Your task to perform on an android device: Search for usb-a to usb-b on newegg, select the first entry, and add it to the cart. Image 0: 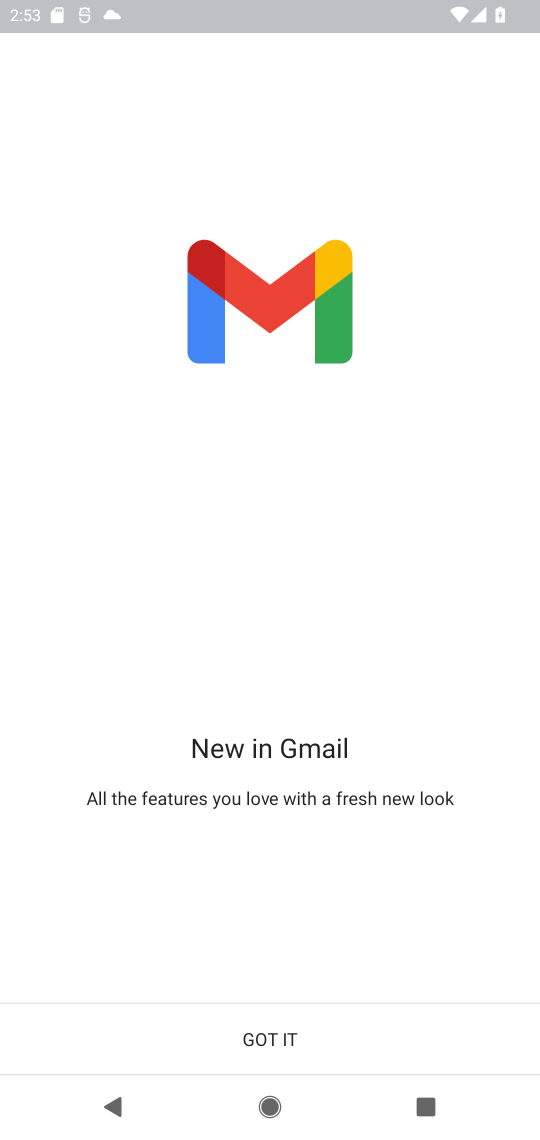
Step 0: press home button
Your task to perform on an android device: Search for usb-a to usb-b on newegg, select the first entry, and add it to the cart. Image 1: 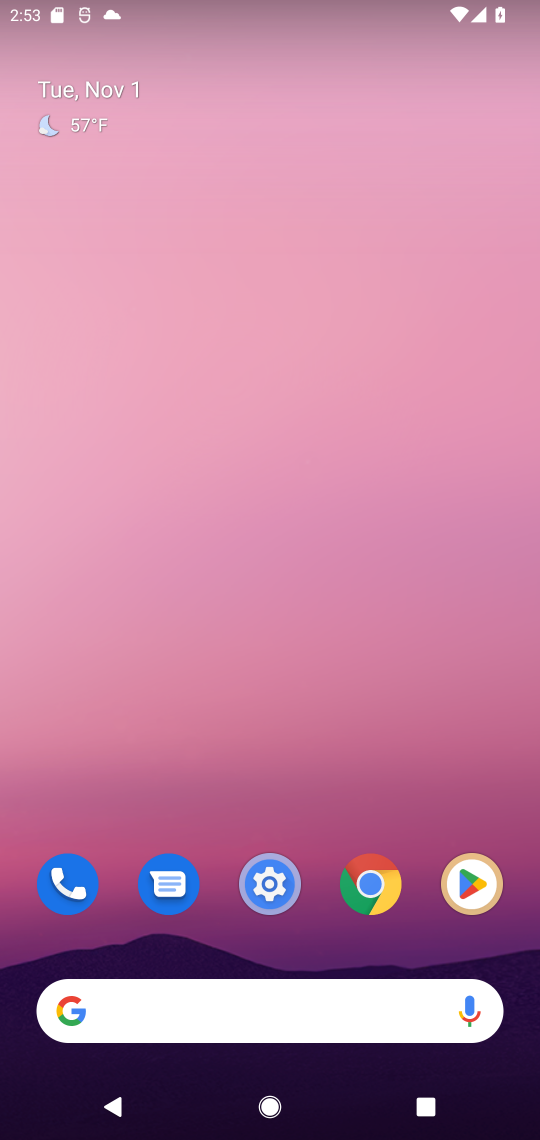
Step 1: click (126, 1014)
Your task to perform on an android device: Search for usb-a to usb-b on newegg, select the first entry, and add it to the cart. Image 2: 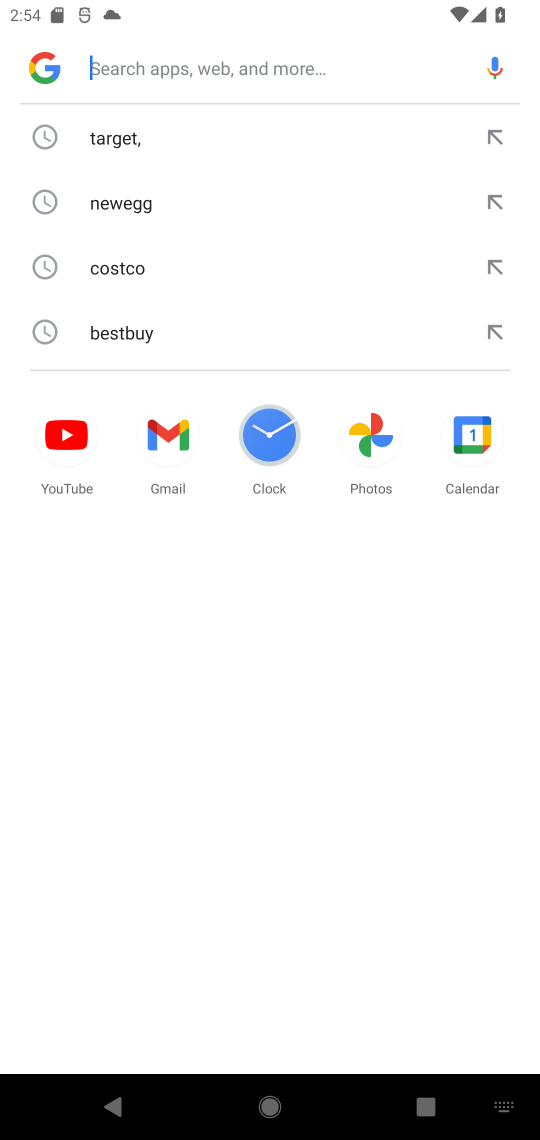
Step 2: type "newegg, "
Your task to perform on an android device: Search for usb-a to usb-b on newegg, select the first entry, and add it to the cart. Image 3: 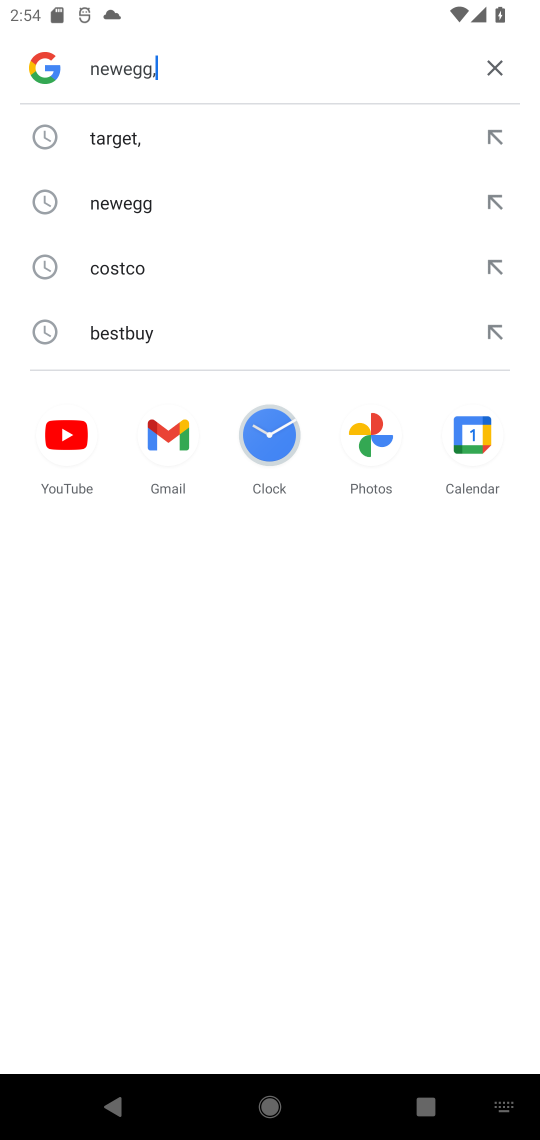
Step 3: press enter
Your task to perform on an android device: Search for usb-a to usb-b on newegg, select the first entry, and add it to the cart. Image 4: 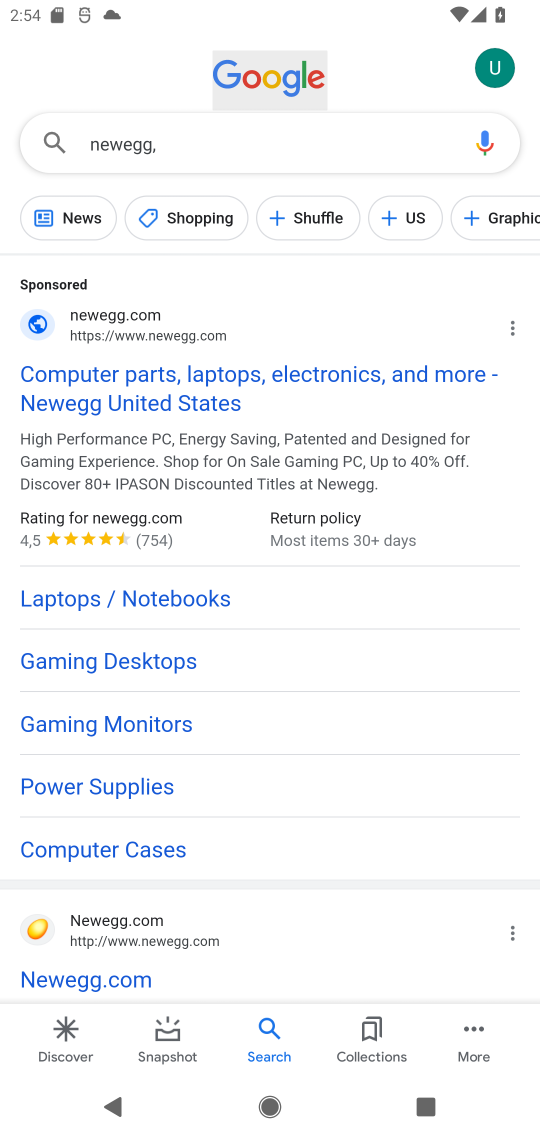
Step 4: drag from (378, 801) to (437, 438)
Your task to perform on an android device: Search for usb-a to usb-b on newegg, select the first entry, and add it to the cart. Image 5: 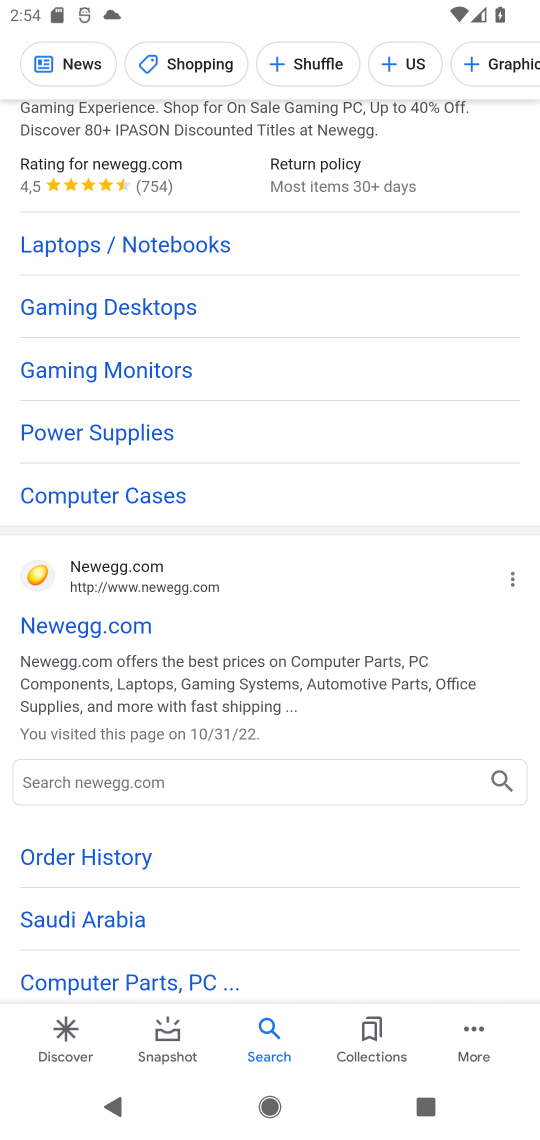
Step 5: click (109, 629)
Your task to perform on an android device: Search for usb-a to usb-b on newegg, select the first entry, and add it to the cart. Image 6: 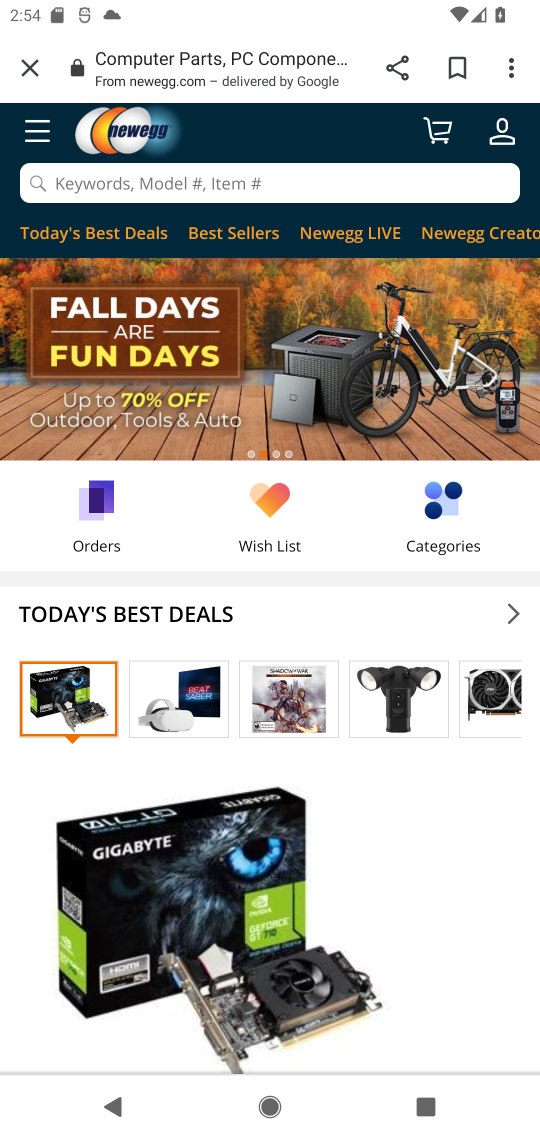
Step 6: click (70, 181)
Your task to perform on an android device: Search for usb-a to usb-b on newegg, select the first entry, and add it to the cart. Image 7: 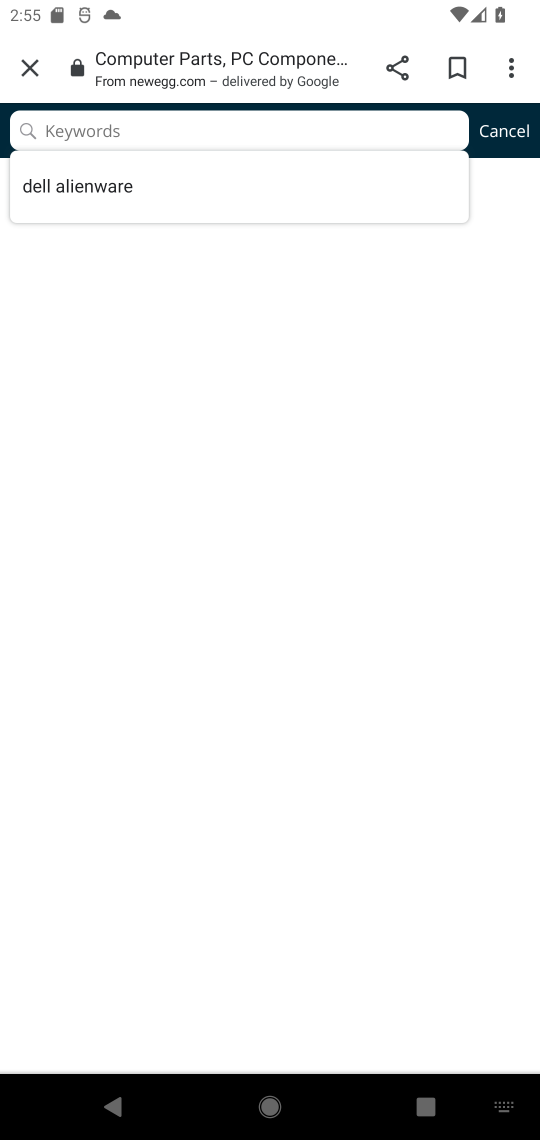
Step 7: press enter
Your task to perform on an android device: Search for usb-a to usb-b on newegg, select the first entry, and add it to the cart. Image 8: 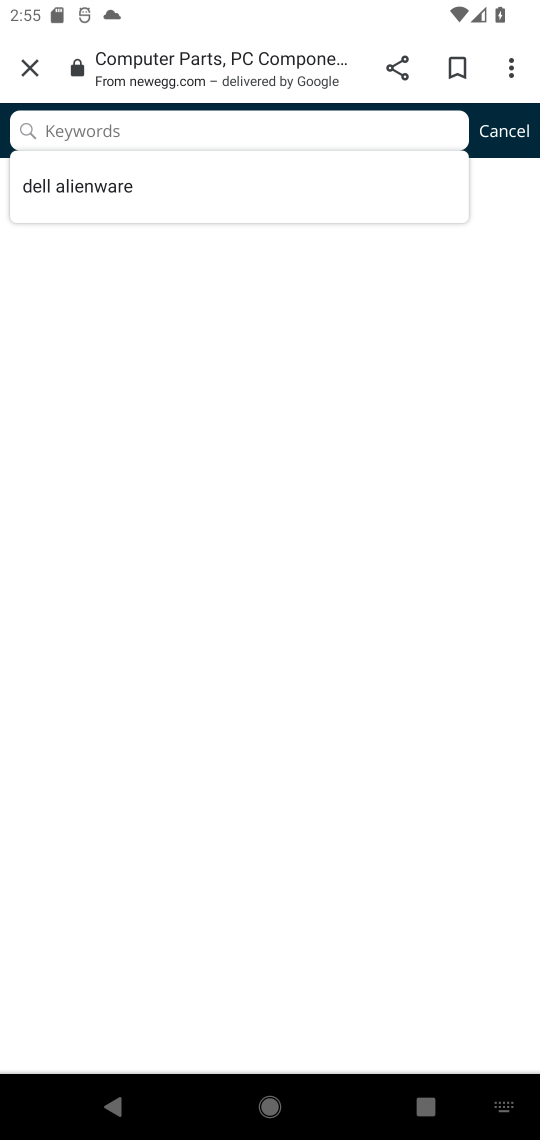
Step 8: type "usb-a to usb-b"
Your task to perform on an android device: Search for usb-a to usb-b on newegg, select the first entry, and add it to the cart. Image 9: 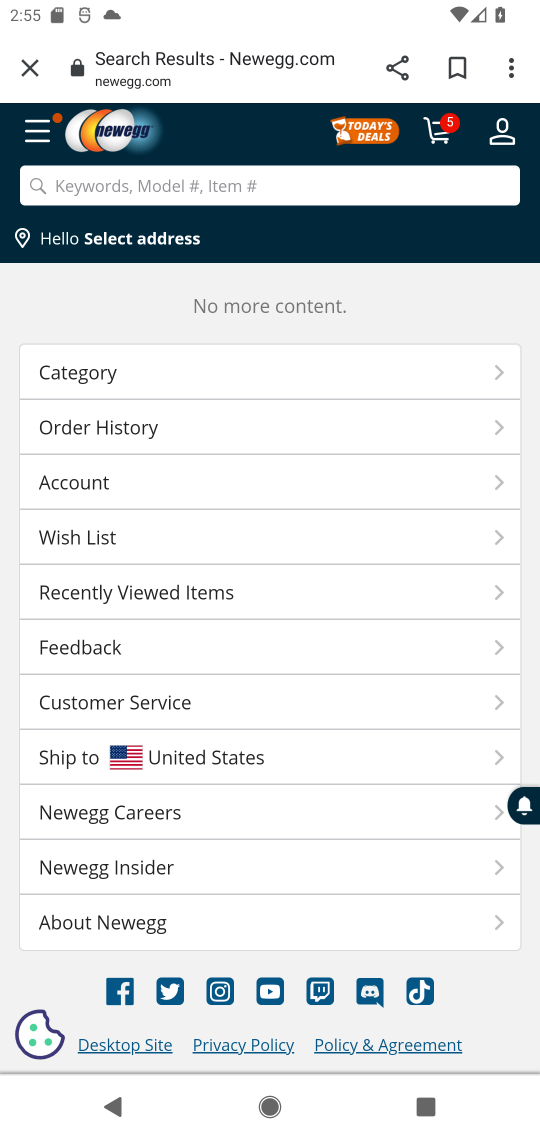
Step 9: click (103, 180)
Your task to perform on an android device: Search for usb-a to usb-b on newegg, select the first entry, and add it to the cart. Image 10: 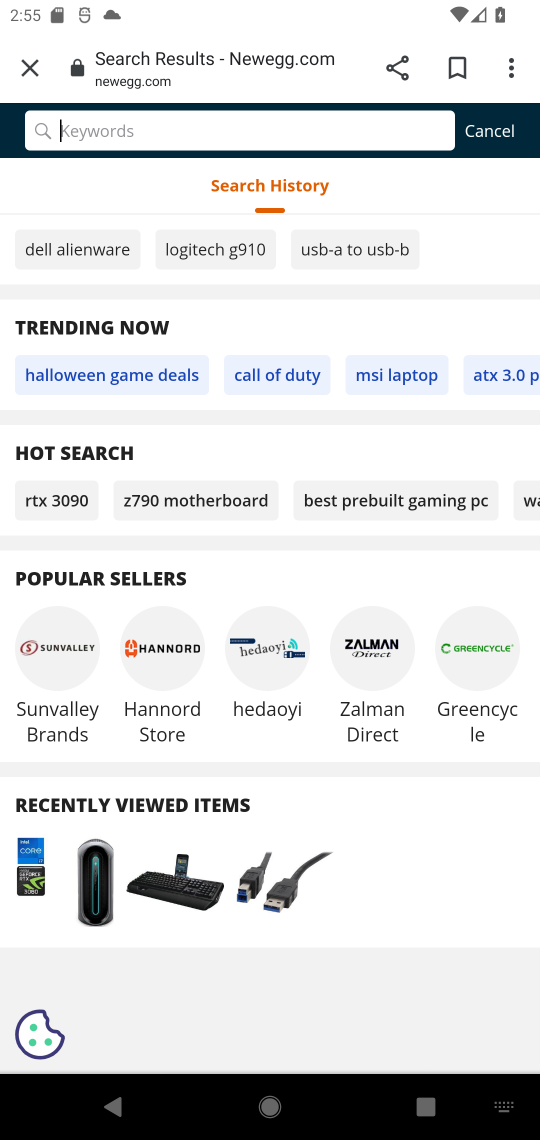
Step 10: type "usb-a to usb-b"
Your task to perform on an android device: Search for usb-a to usb-b on newegg, select the first entry, and add it to the cart. Image 11: 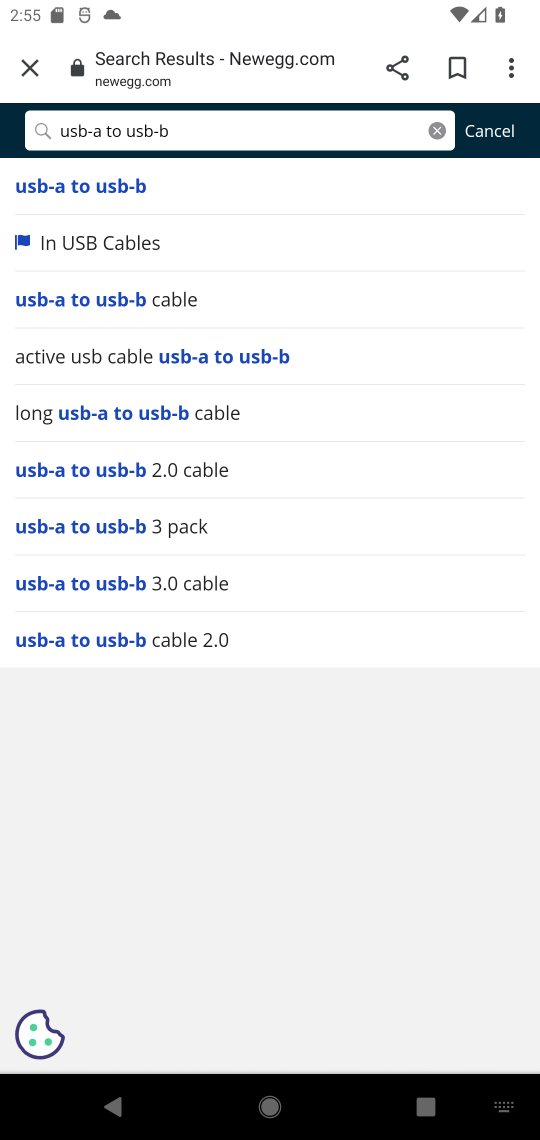
Step 11: click (156, 187)
Your task to perform on an android device: Search for usb-a to usb-b on newegg, select the first entry, and add it to the cart. Image 12: 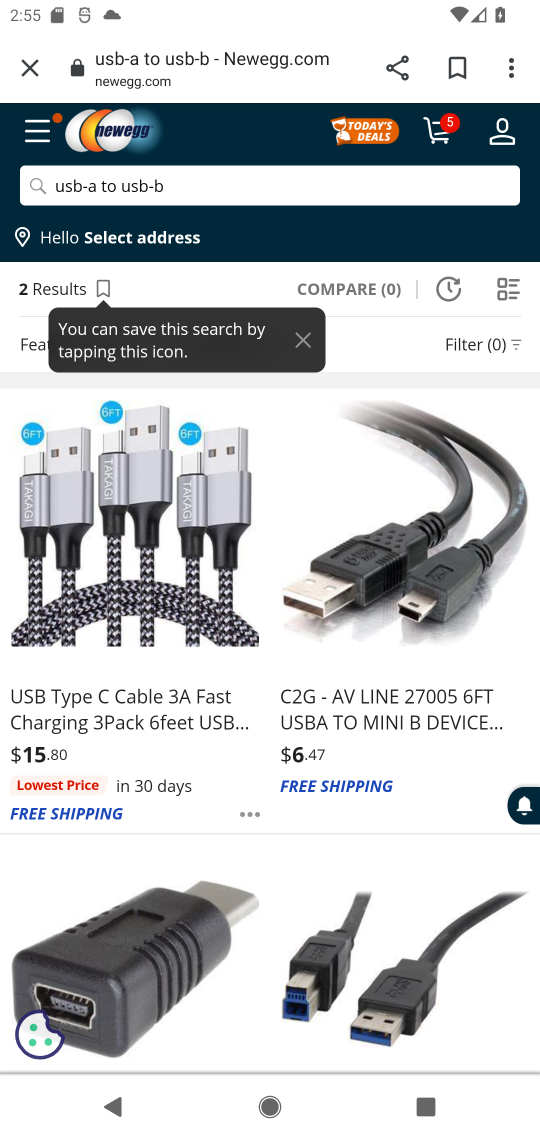
Step 12: drag from (352, 813) to (363, 532)
Your task to perform on an android device: Search for usb-a to usb-b on newegg, select the first entry, and add it to the cart. Image 13: 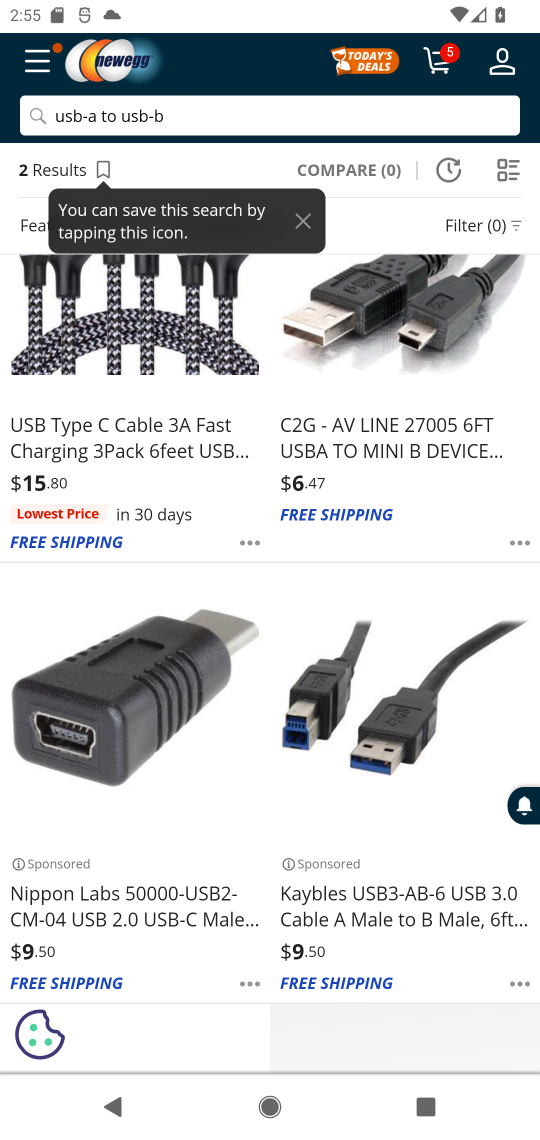
Step 13: click (409, 902)
Your task to perform on an android device: Search for usb-a to usb-b on newegg, select the first entry, and add it to the cart. Image 14: 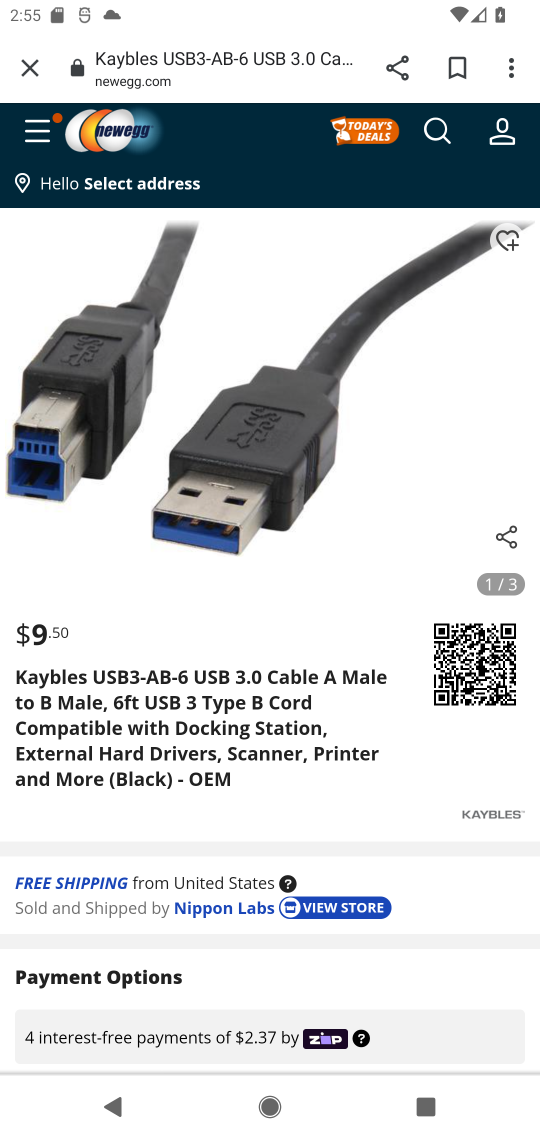
Step 14: click (208, 1045)
Your task to perform on an android device: Search for usb-a to usb-b on newegg, select the first entry, and add it to the cart. Image 15: 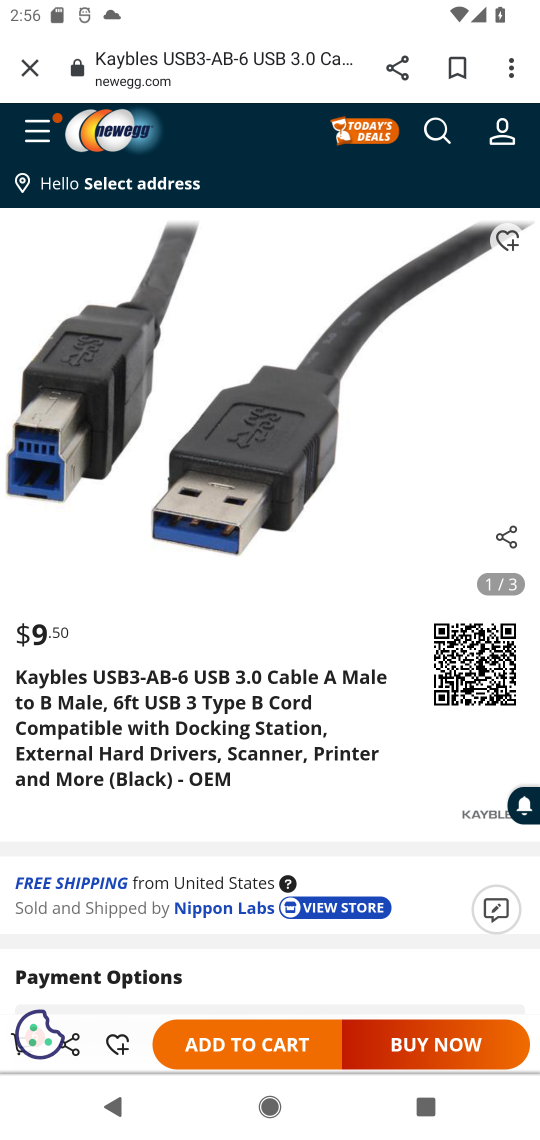
Step 15: task complete